Your task to perform on an android device: all mails in gmail Image 0: 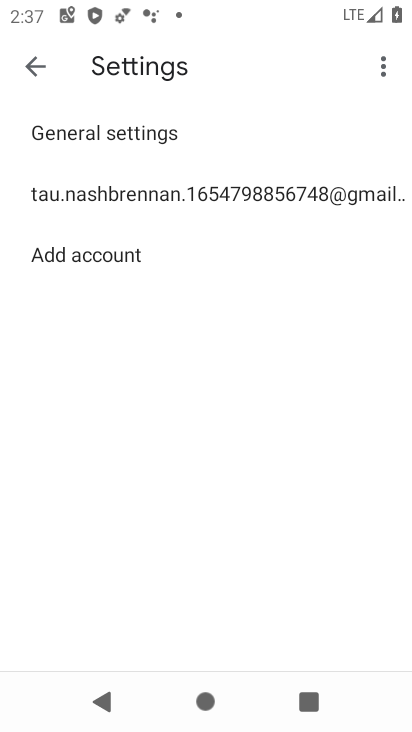
Step 0: click (36, 58)
Your task to perform on an android device: all mails in gmail Image 1: 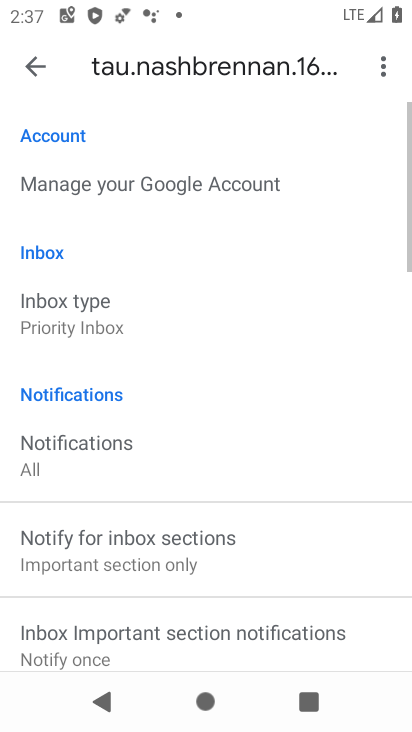
Step 1: click (36, 59)
Your task to perform on an android device: all mails in gmail Image 2: 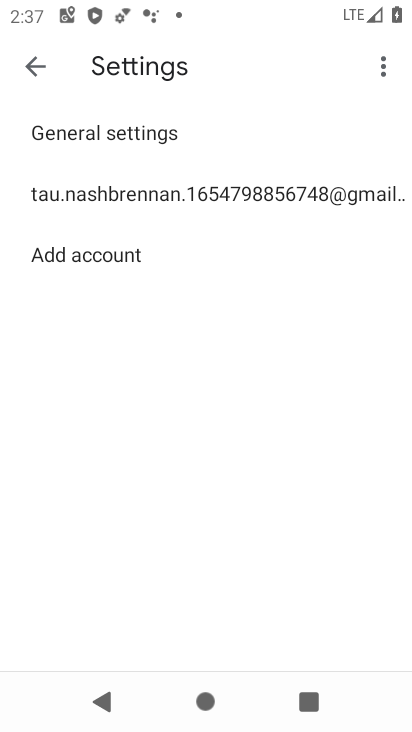
Step 2: click (36, 61)
Your task to perform on an android device: all mails in gmail Image 3: 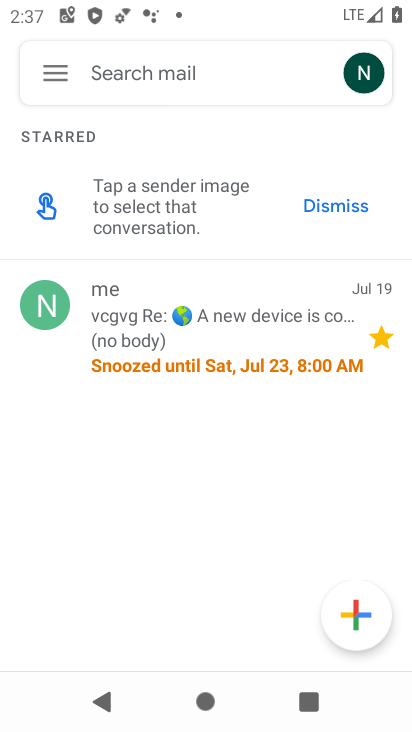
Step 3: click (49, 73)
Your task to perform on an android device: all mails in gmail Image 4: 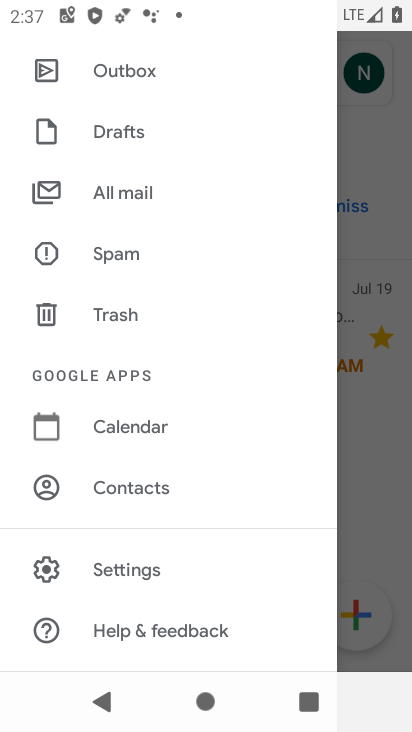
Step 4: click (101, 186)
Your task to perform on an android device: all mails in gmail Image 5: 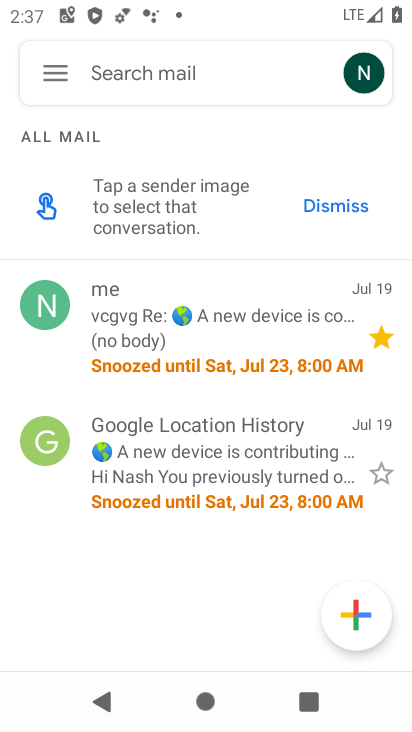
Step 5: task complete